Your task to perform on an android device: set the timer Image 0: 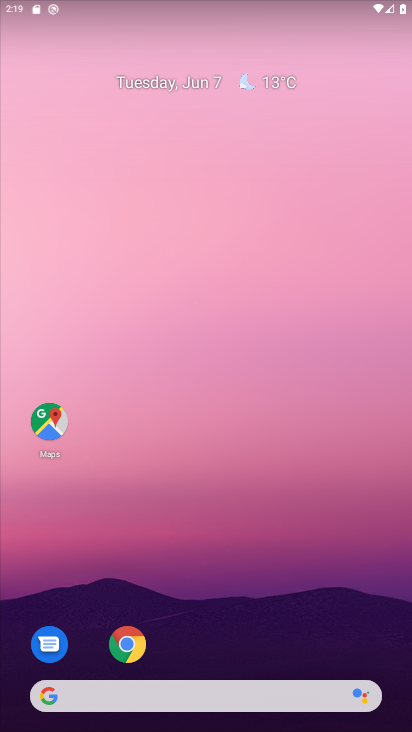
Step 0: drag from (224, 658) to (232, 109)
Your task to perform on an android device: set the timer Image 1: 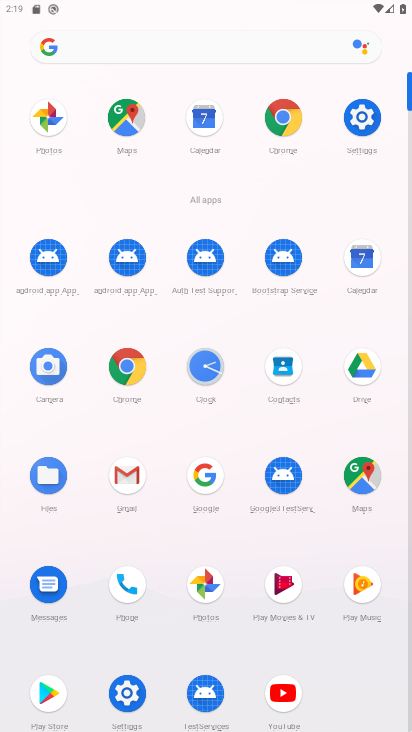
Step 1: click (201, 360)
Your task to perform on an android device: set the timer Image 2: 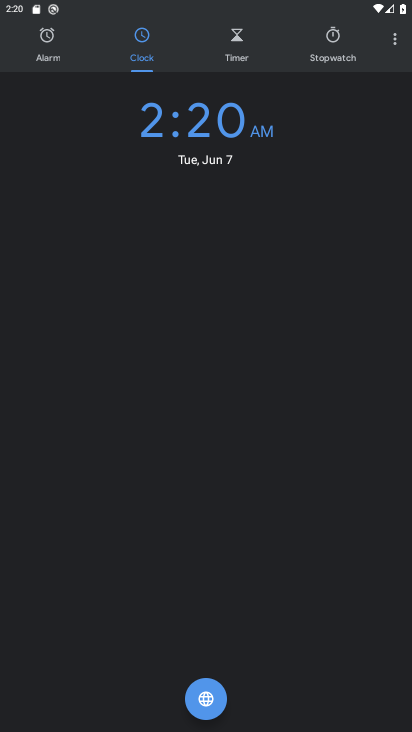
Step 2: click (237, 36)
Your task to perform on an android device: set the timer Image 3: 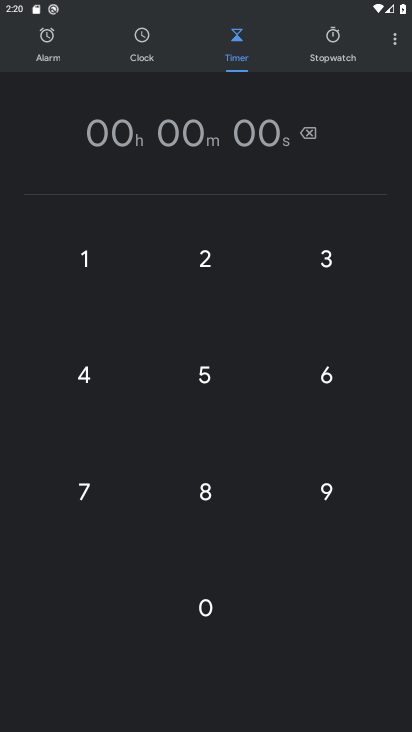
Step 3: click (209, 252)
Your task to perform on an android device: set the timer Image 4: 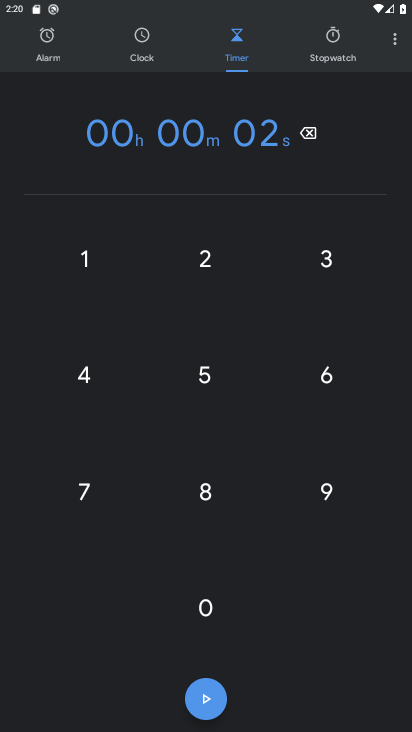
Step 4: click (202, 599)
Your task to perform on an android device: set the timer Image 5: 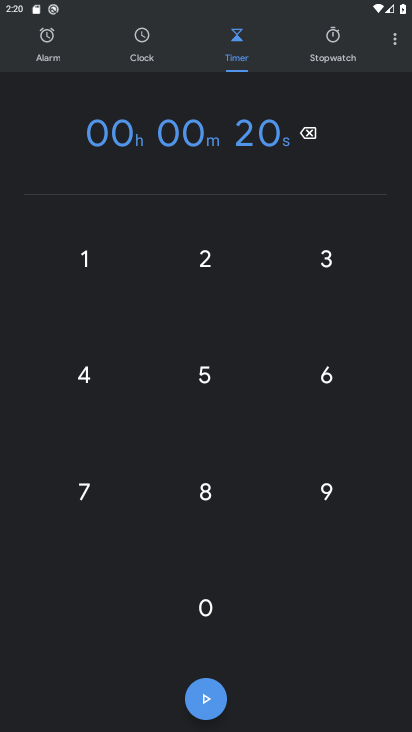
Step 5: click (202, 599)
Your task to perform on an android device: set the timer Image 6: 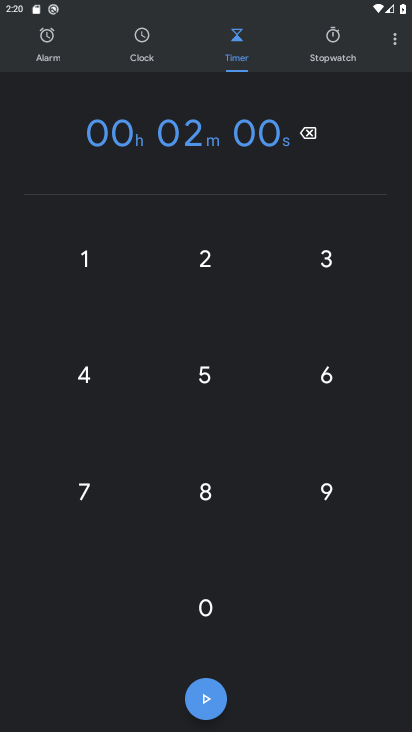
Step 6: click (202, 599)
Your task to perform on an android device: set the timer Image 7: 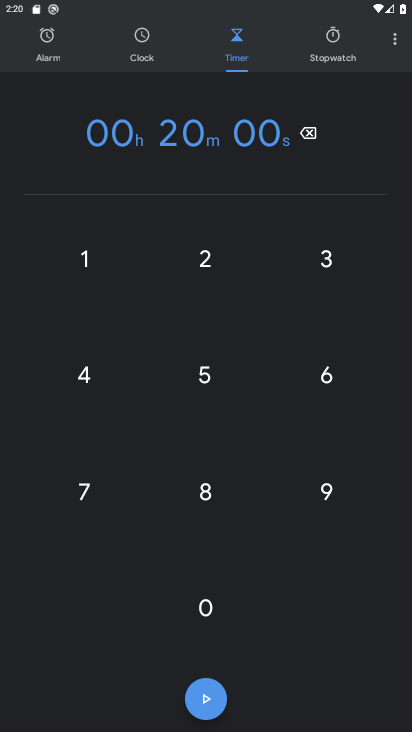
Step 7: click (204, 696)
Your task to perform on an android device: set the timer Image 8: 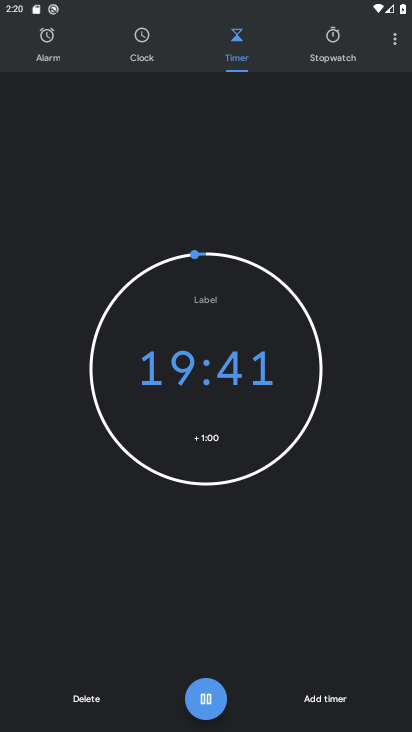
Step 8: task complete